Your task to perform on an android device: Go to Google maps Image 0: 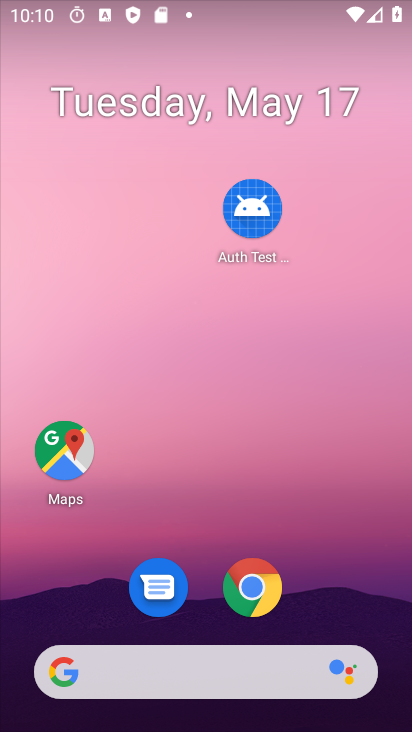
Step 0: drag from (197, 597) to (157, 174)
Your task to perform on an android device: Go to Google maps Image 1: 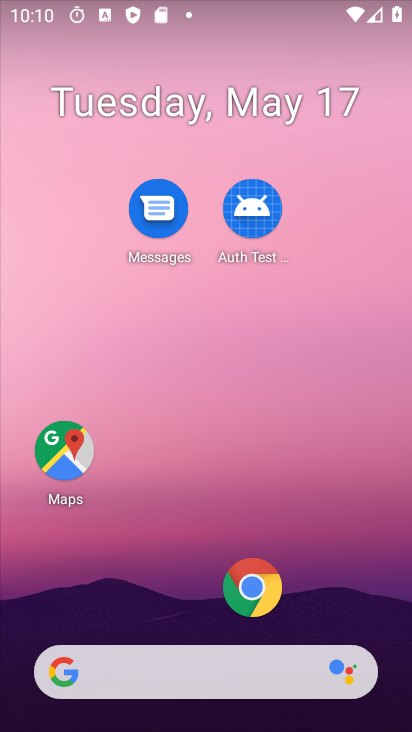
Step 1: drag from (197, 543) to (226, 86)
Your task to perform on an android device: Go to Google maps Image 2: 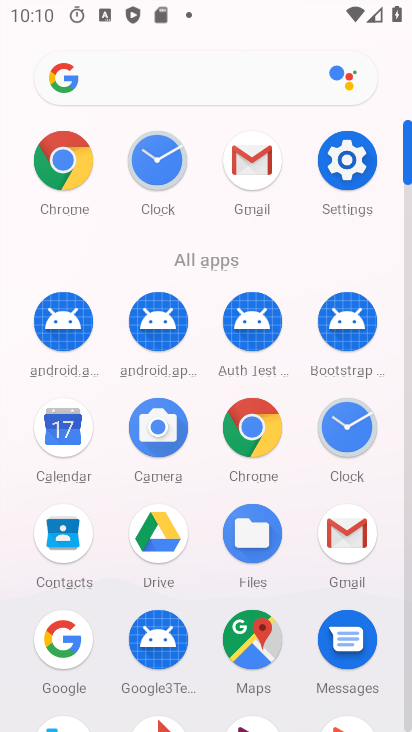
Step 2: click (253, 659)
Your task to perform on an android device: Go to Google maps Image 3: 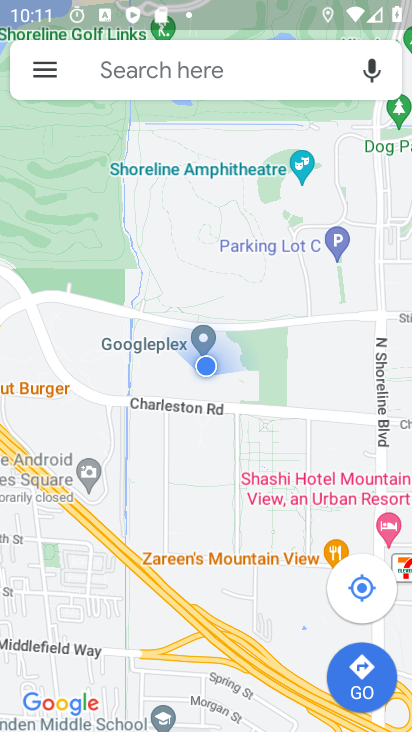
Step 3: task complete